Your task to perform on an android device: Check the weather Image 0: 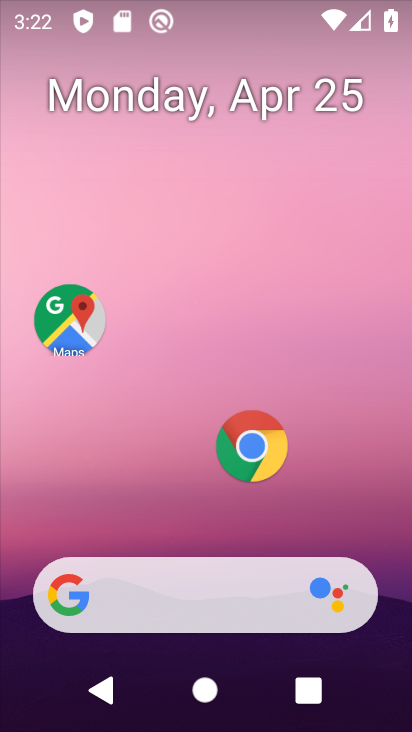
Step 0: click (235, 603)
Your task to perform on an android device: Check the weather Image 1: 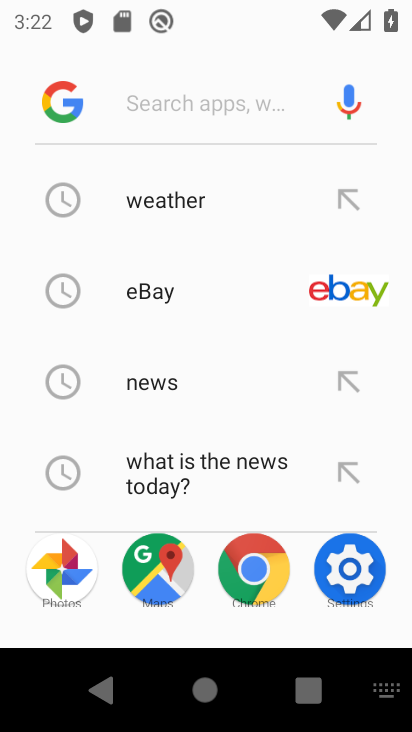
Step 1: click (158, 193)
Your task to perform on an android device: Check the weather Image 2: 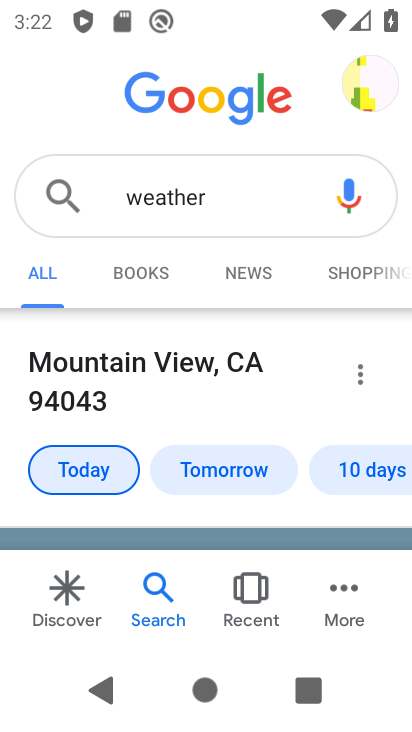
Step 2: task complete